Your task to perform on an android device: Open Maps and search for coffee Image 0: 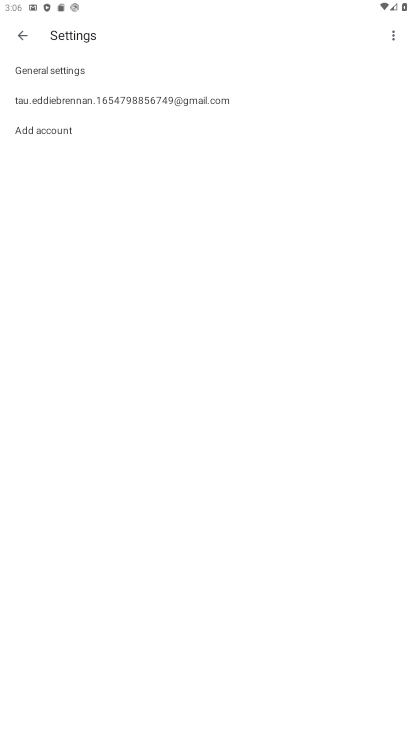
Step 0: click (77, 401)
Your task to perform on an android device: Open Maps and search for coffee Image 1: 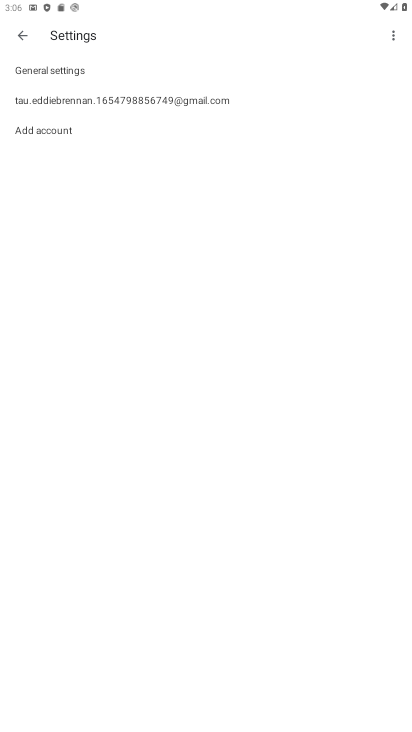
Step 1: press home button
Your task to perform on an android device: Open Maps and search for coffee Image 2: 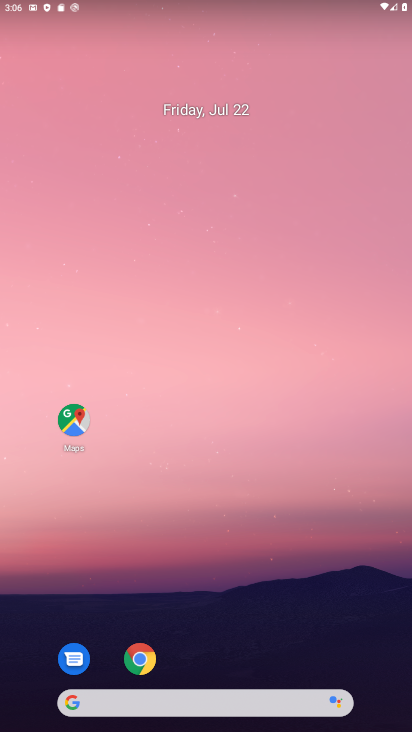
Step 2: click (69, 412)
Your task to perform on an android device: Open Maps and search for coffee Image 3: 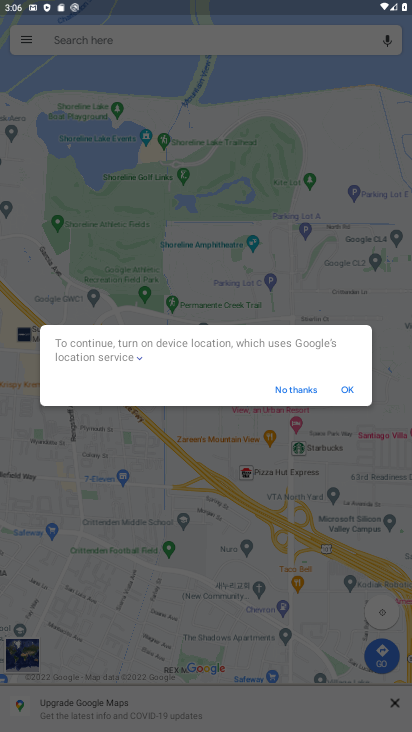
Step 3: click (145, 41)
Your task to perform on an android device: Open Maps and search for coffee Image 4: 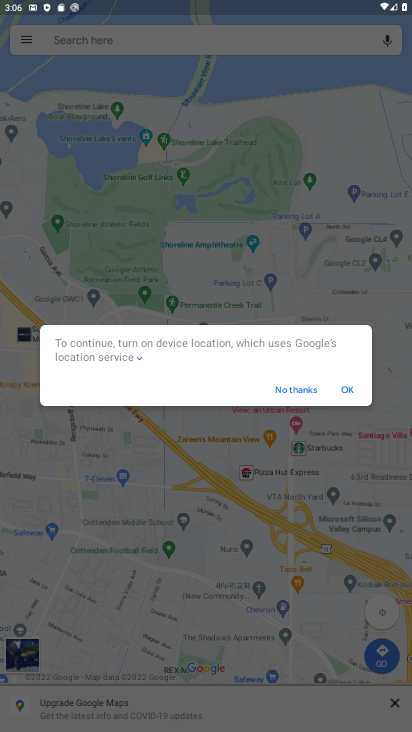
Step 4: click (345, 381)
Your task to perform on an android device: Open Maps and search for coffee Image 5: 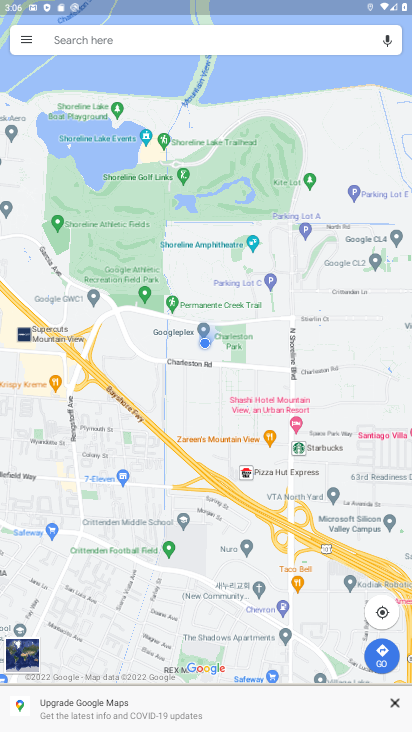
Step 5: click (135, 44)
Your task to perform on an android device: Open Maps and search for coffee Image 6: 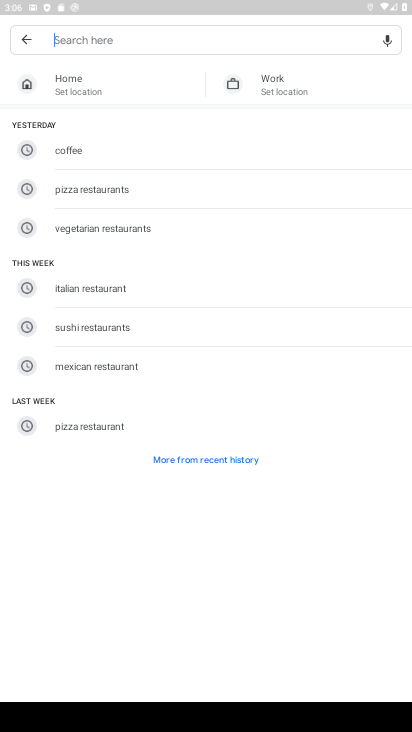
Step 6: type "coffee"
Your task to perform on an android device: Open Maps and search for coffee Image 7: 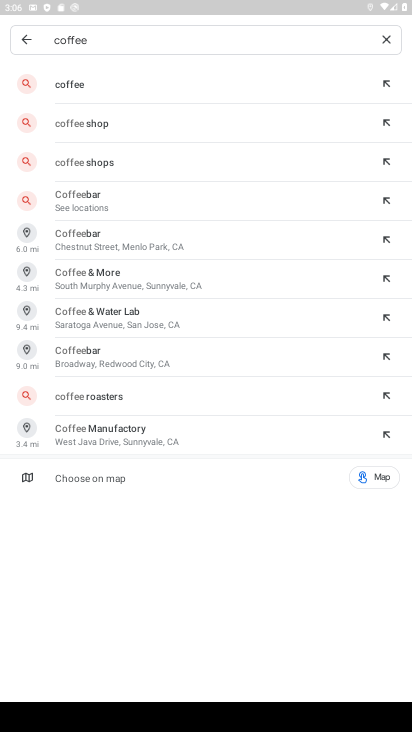
Step 7: click (91, 96)
Your task to perform on an android device: Open Maps and search for coffee Image 8: 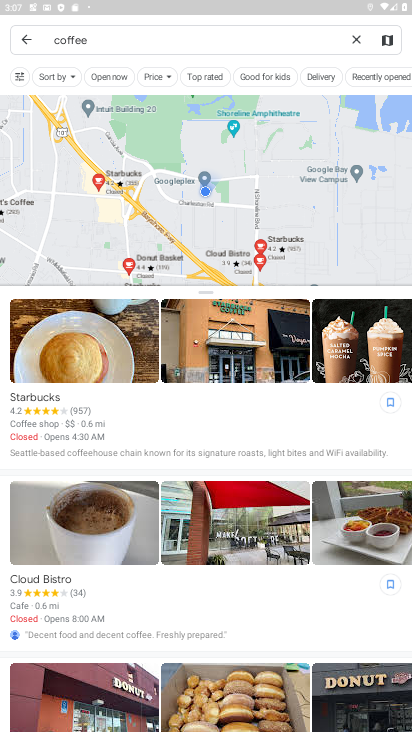
Step 8: task complete